Your task to perform on an android device: open app "Google Translate" (install if not already installed) Image 0: 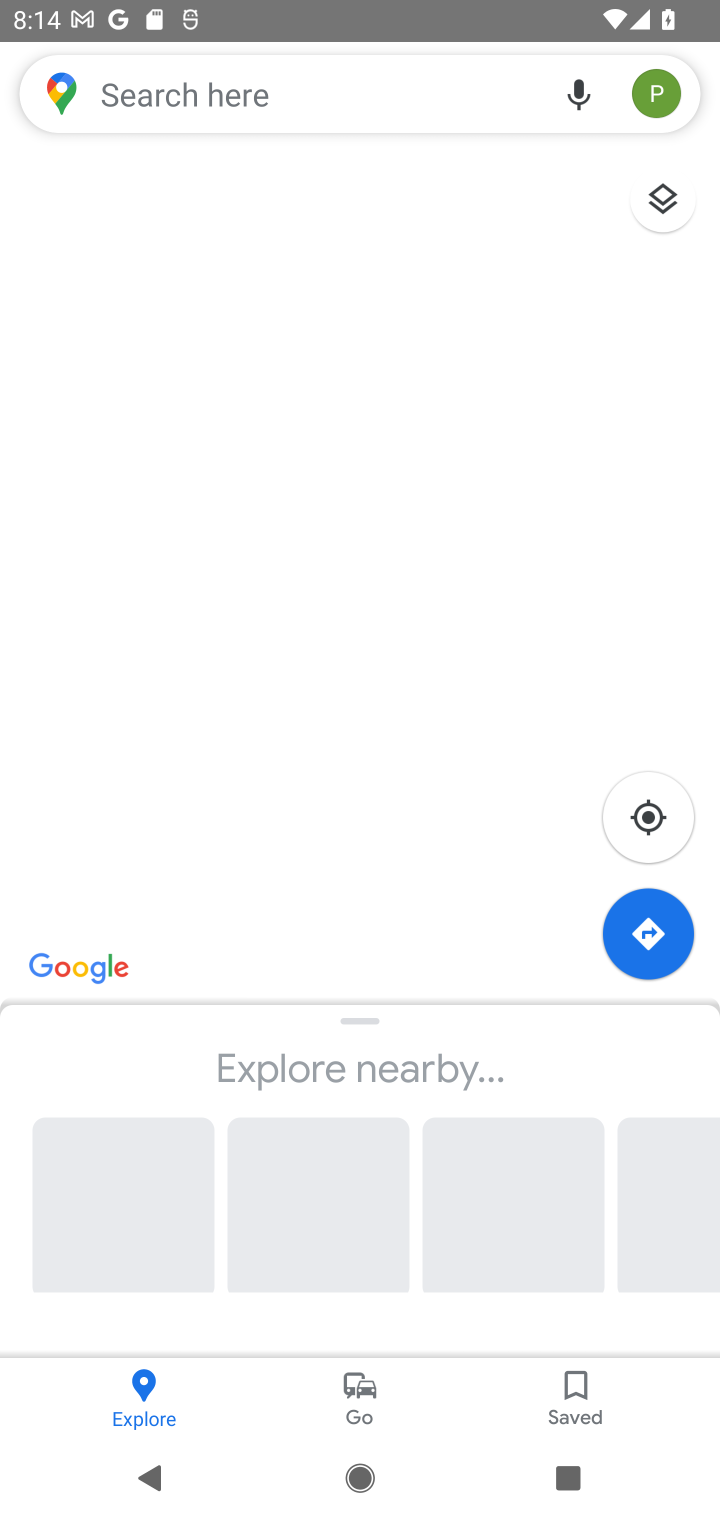
Step 0: press home button
Your task to perform on an android device: open app "Google Translate" (install if not already installed) Image 1: 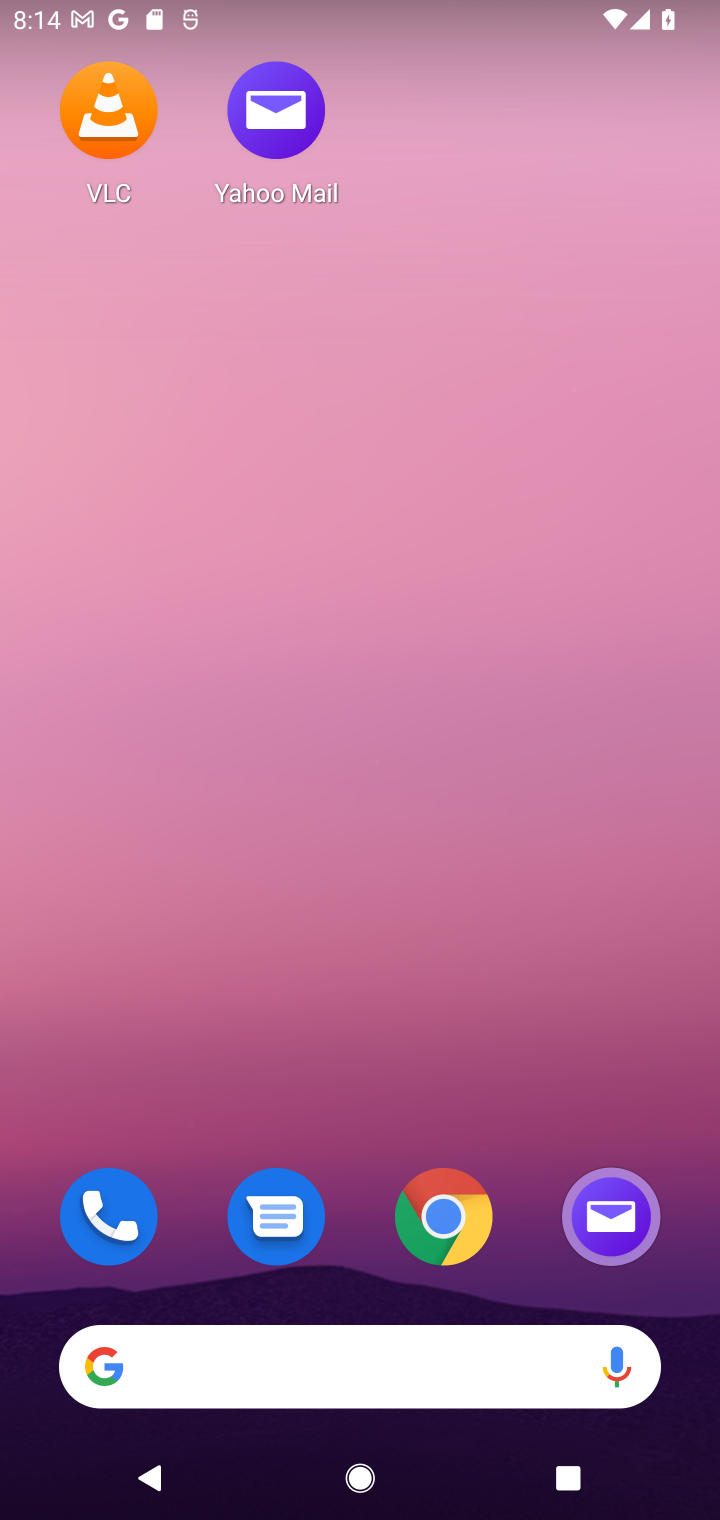
Step 1: press home button
Your task to perform on an android device: open app "Google Translate" (install if not already installed) Image 2: 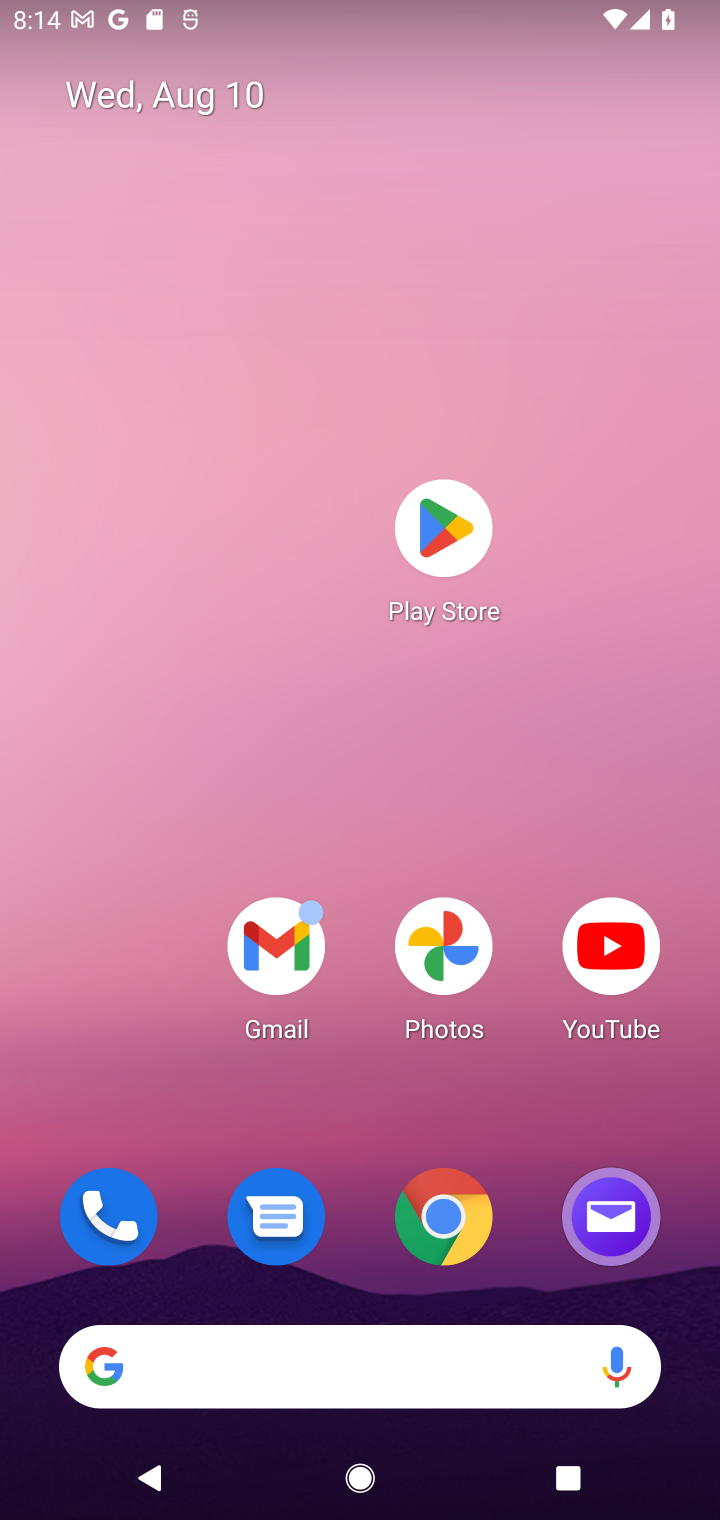
Step 2: click (433, 532)
Your task to perform on an android device: open app "Google Translate" (install if not already installed) Image 3: 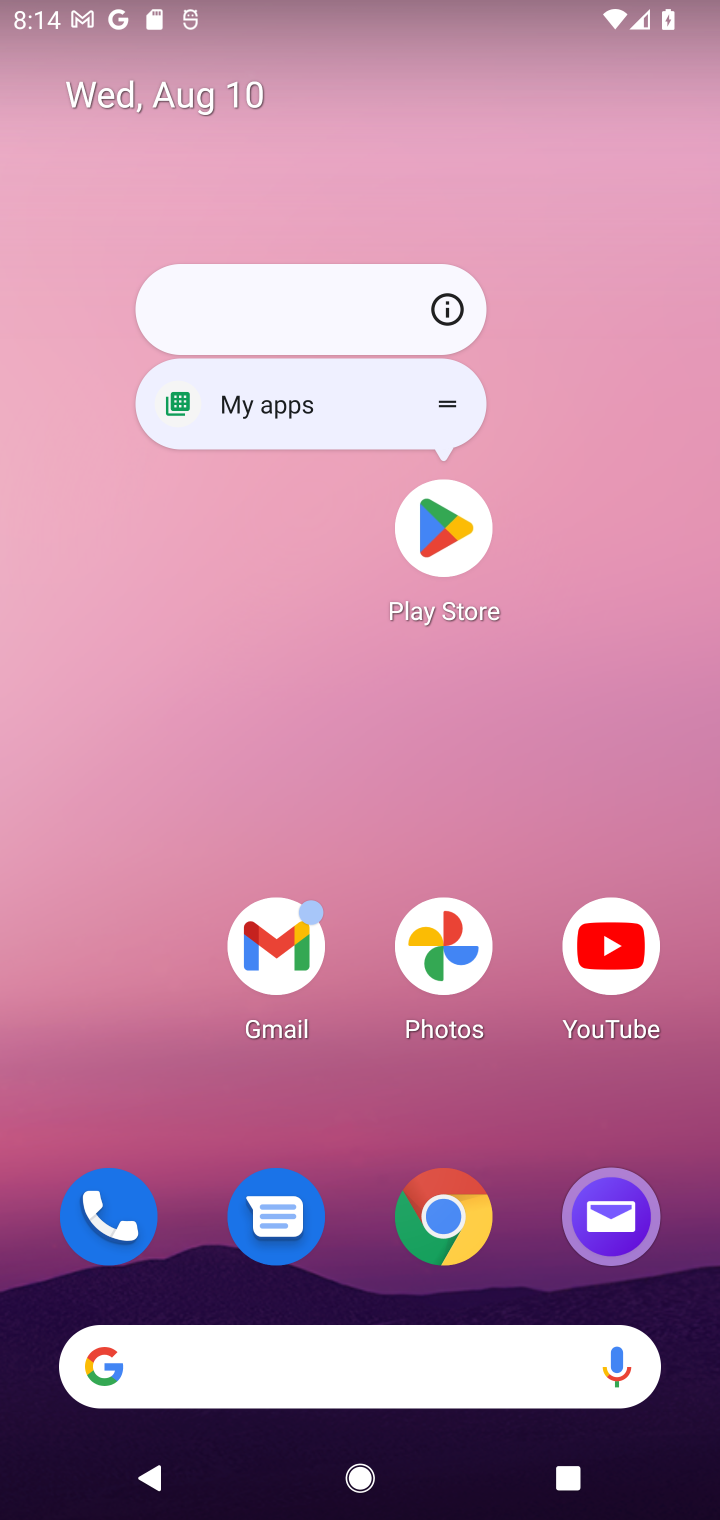
Step 3: click (433, 532)
Your task to perform on an android device: open app "Google Translate" (install if not already installed) Image 4: 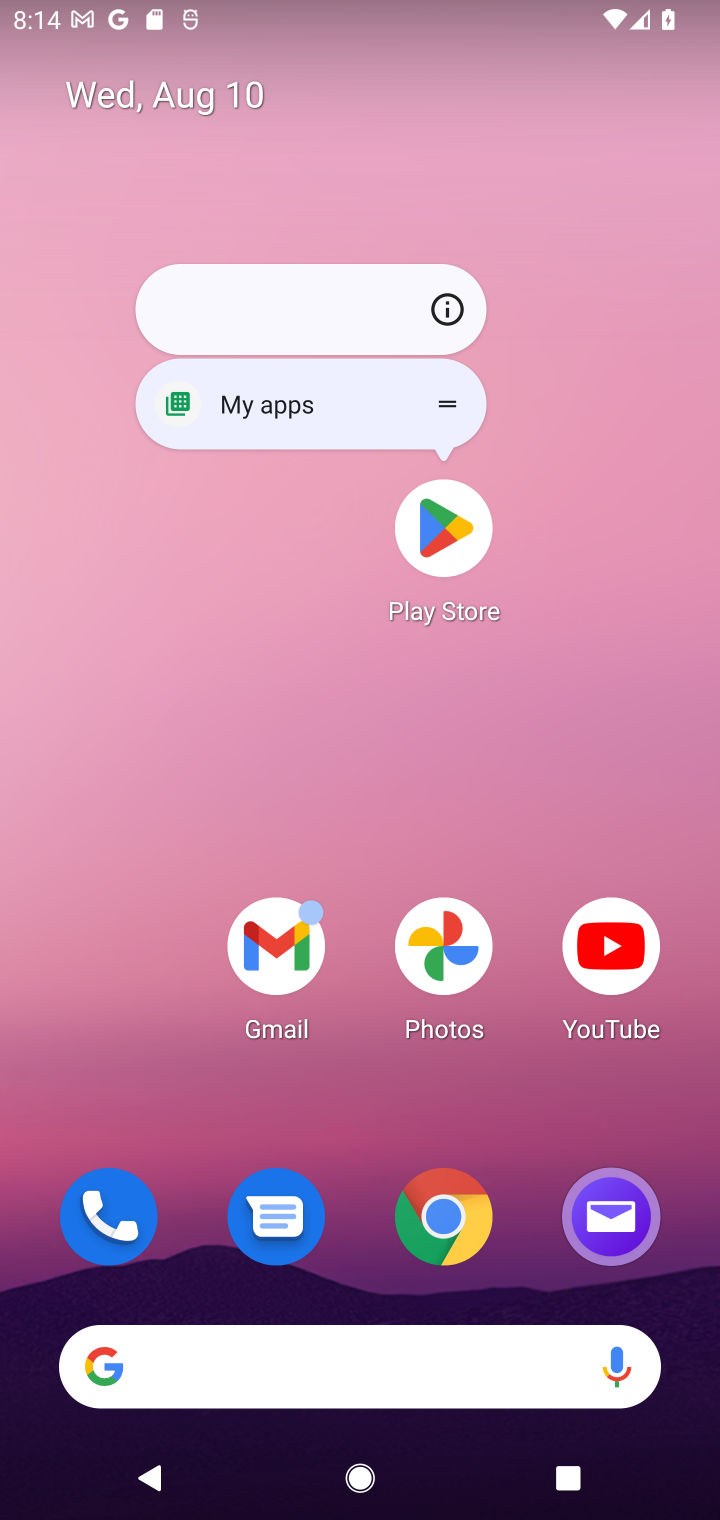
Step 4: click (433, 536)
Your task to perform on an android device: open app "Google Translate" (install if not already installed) Image 5: 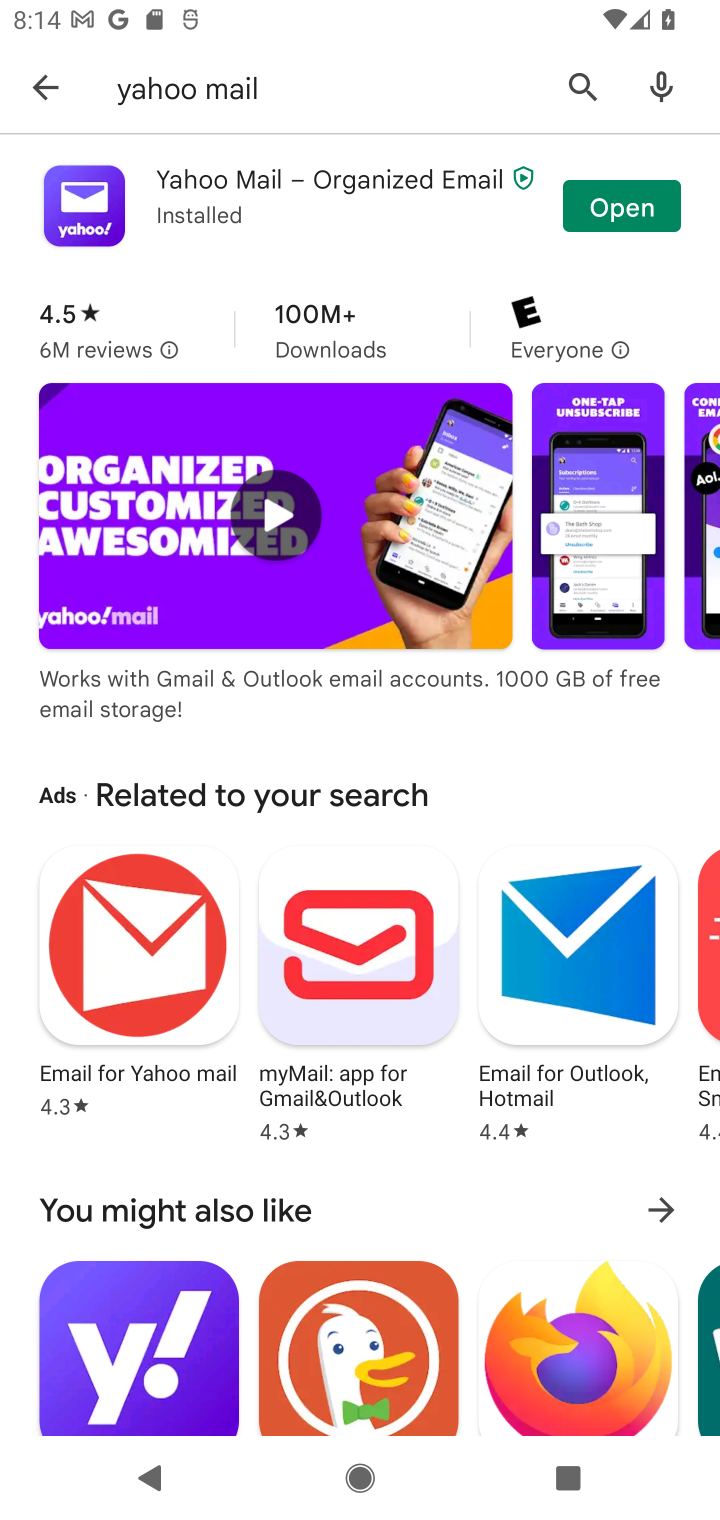
Step 5: click (579, 70)
Your task to perform on an android device: open app "Google Translate" (install if not already installed) Image 6: 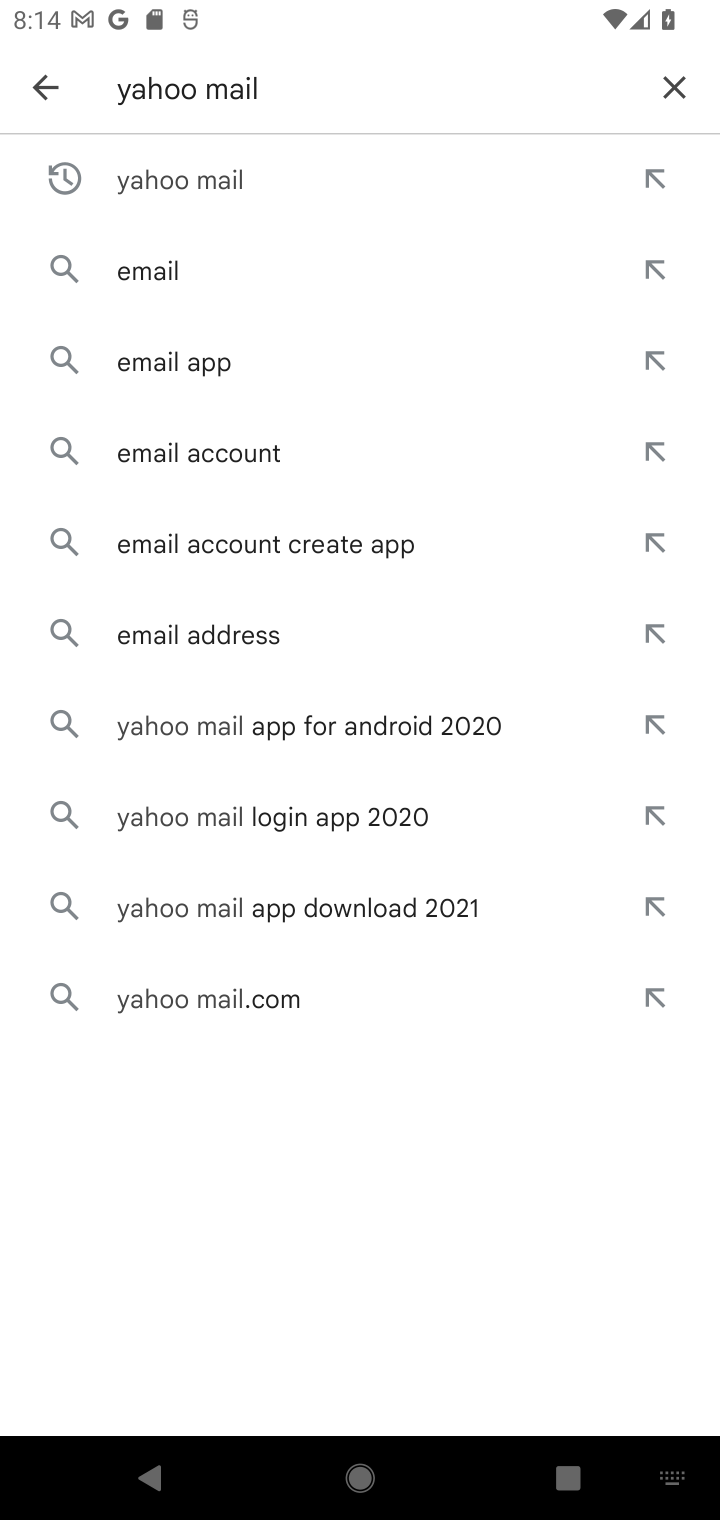
Step 6: click (664, 68)
Your task to perform on an android device: open app "Google Translate" (install if not already installed) Image 7: 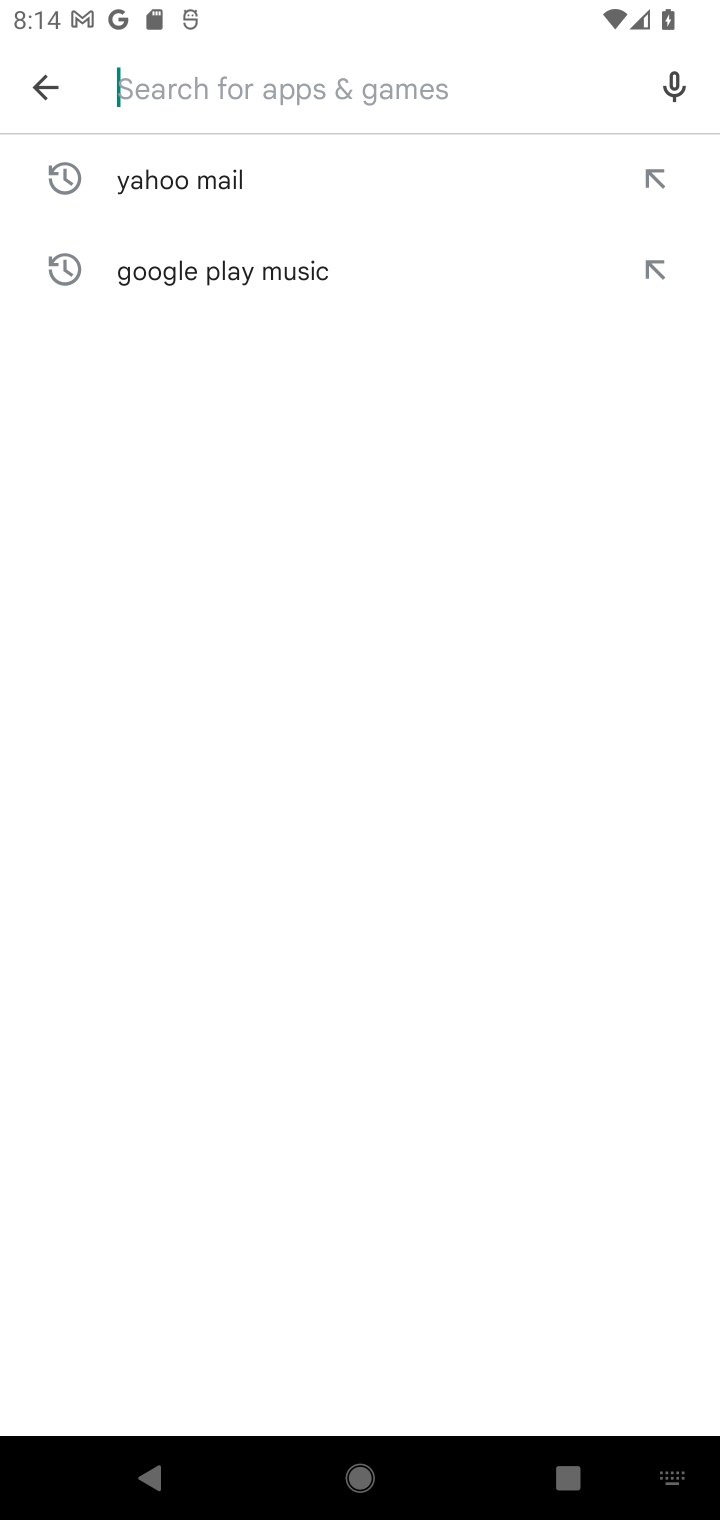
Step 7: type "Google Translate"
Your task to perform on an android device: open app "Google Translate" (install if not already installed) Image 8: 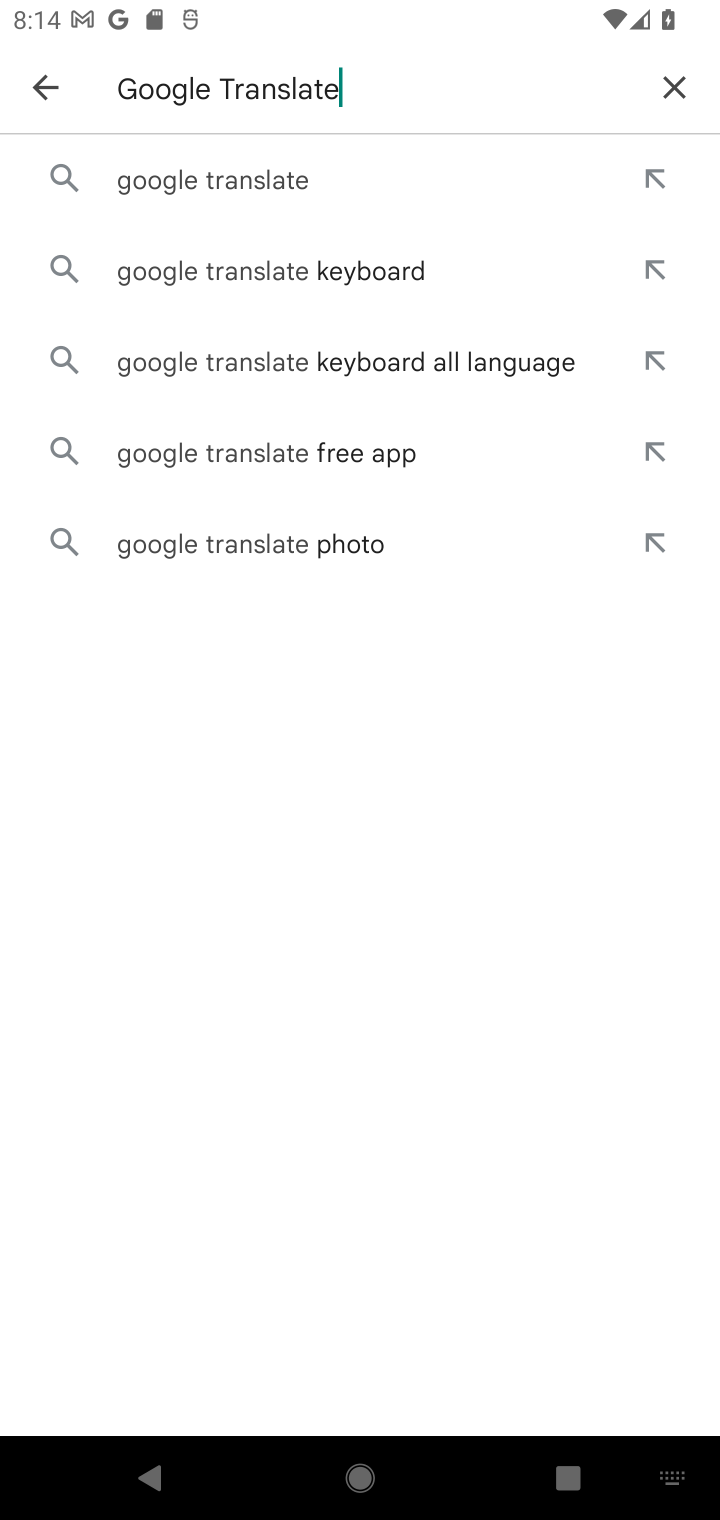
Step 8: click (264, 166)
Your task to perform on an android device: open app "Google Translate" (install if not already installed) Image 9: 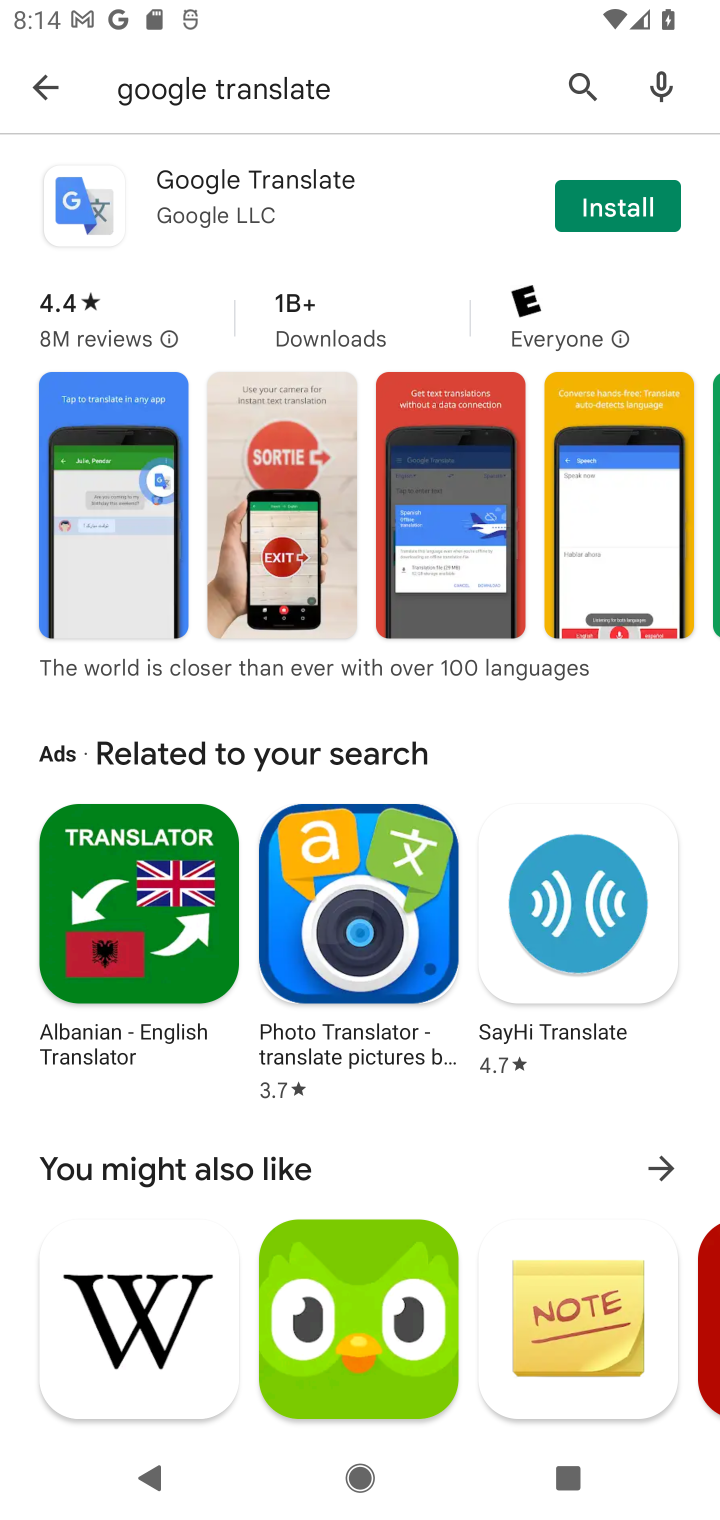
Step 9: click (622, 206)
Your task to perform on an android device: open app "Google Translate" (install if not already installed) Image 10: 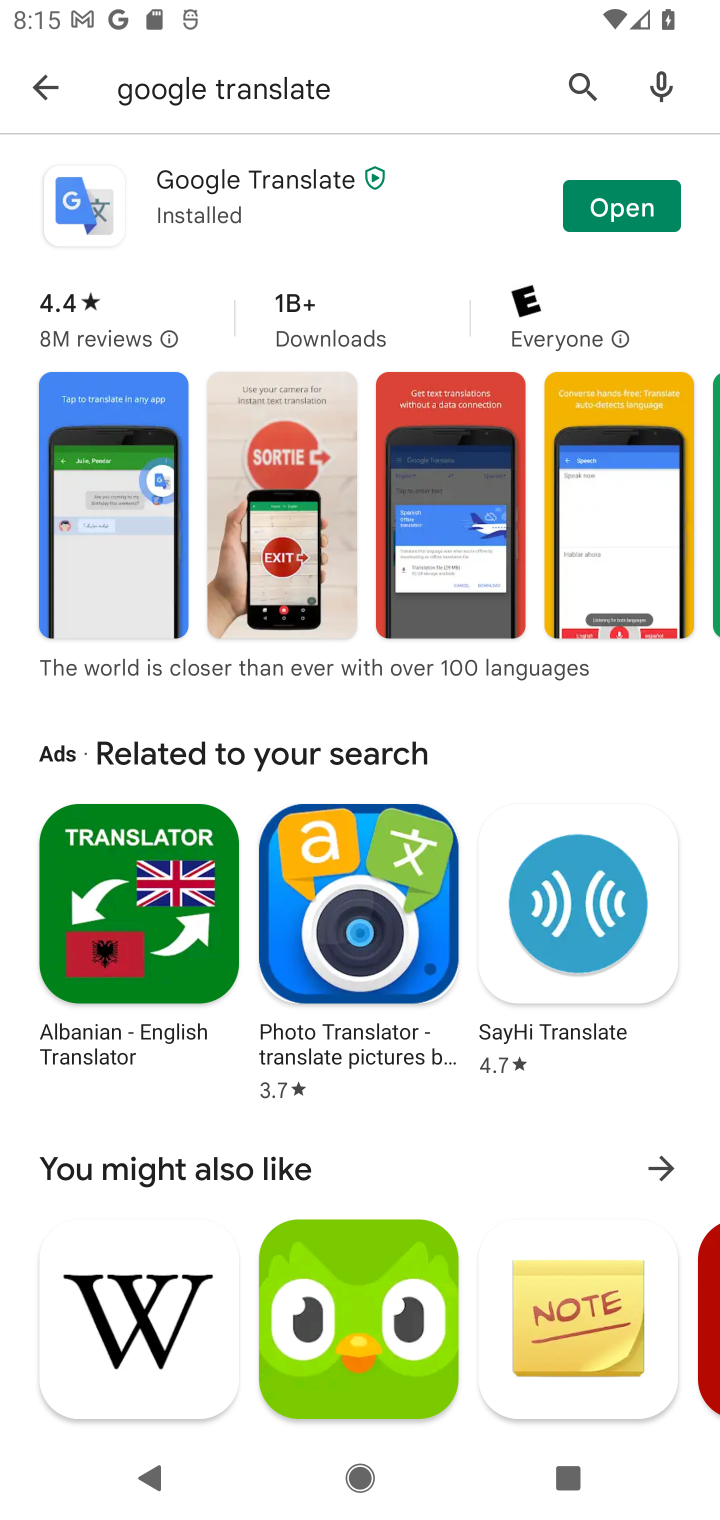
Step 10: click (645, 200)
Your task to perform on an android device: open app "Google Translate" (install if not already installed) Image 11: 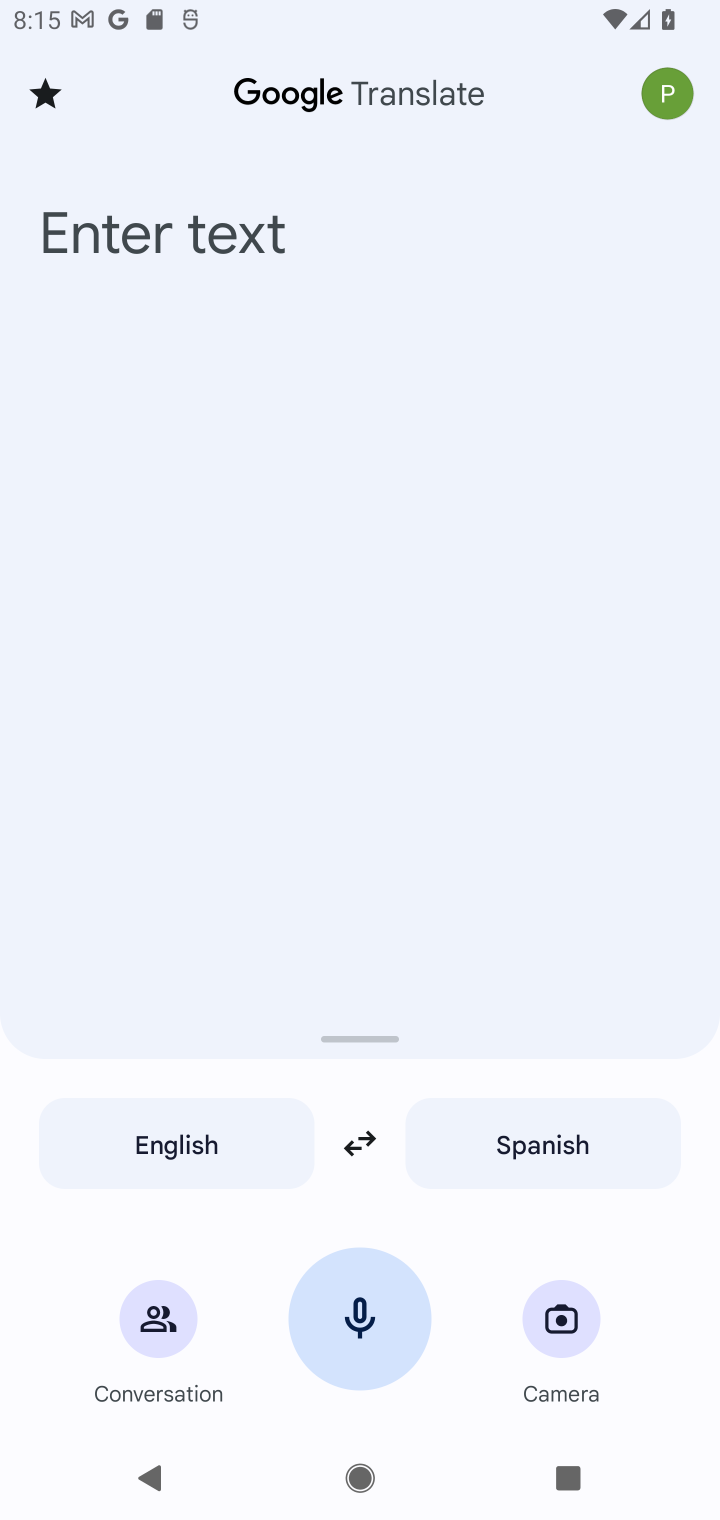
Step 11: task complete